Your task to perform on an android device: What's the weather going to be tomorrow? Image 0: 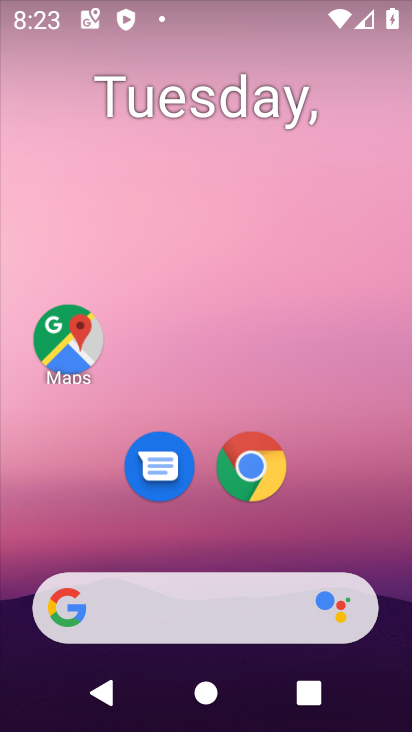
Step 0: click (225, 629)
Your task to perform on an android device: What's the weather going to be tomorrow? Image 1: 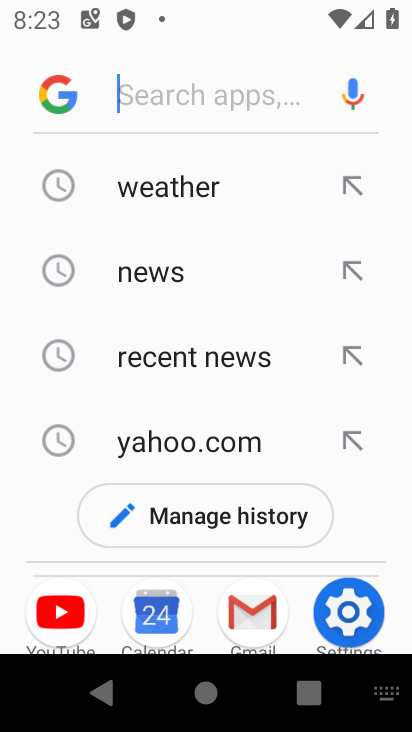
Step 1: click (166, 211)
Your task to perform on an android device: What's the weather going to be tomorrow? Image 2: 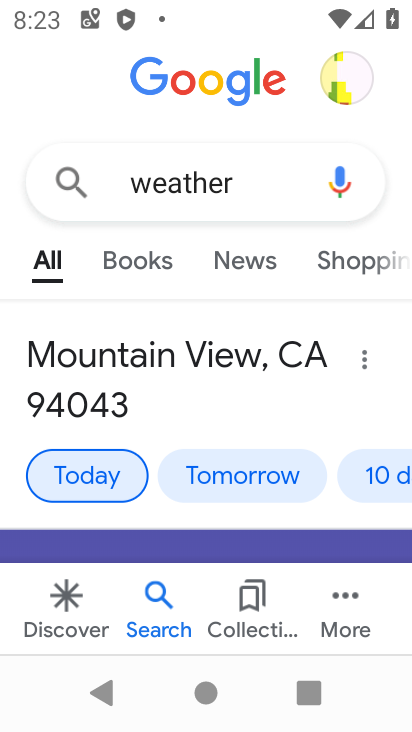
Step 2: click (225, 463)
Your task to perform on an android device: What's the weather going to be tomorrow? Image 3: 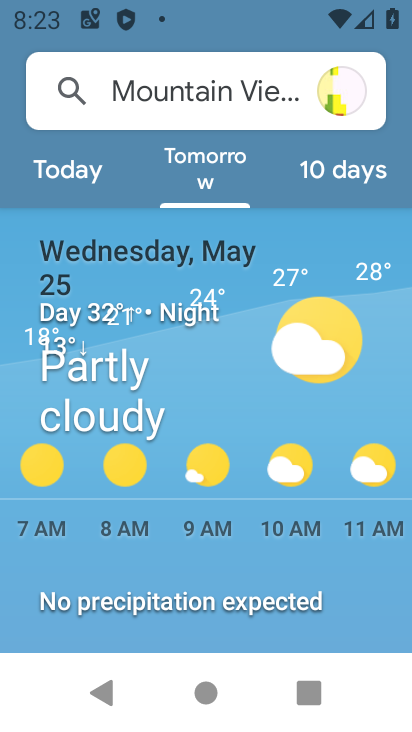
Step 3: task complete